Your task to perform on an android device: Go to battery settings Image 0: 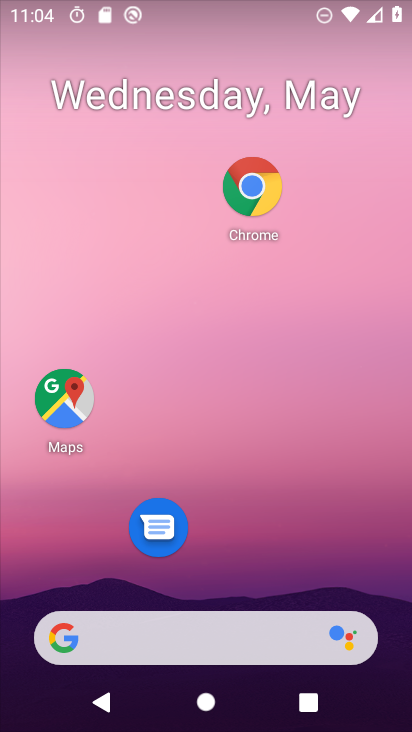
Step 0: drag from (227, 600) to (232, 192)
Your task to perform on an android device: Go to battery settings Image 1: 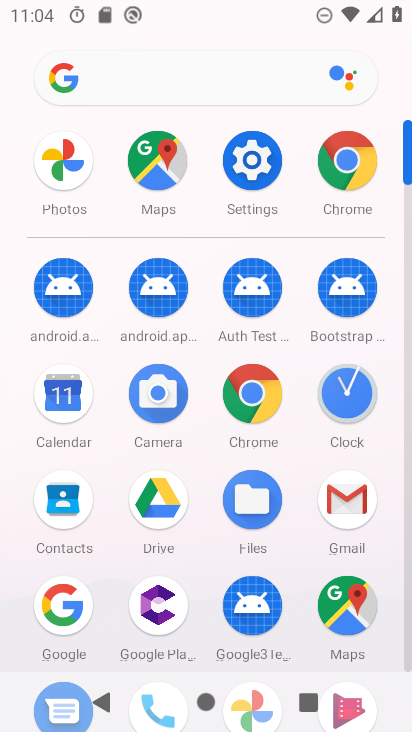
Step 1: click (253, 188)
Your task to perform on an android device: Go to battery settings Image 2: 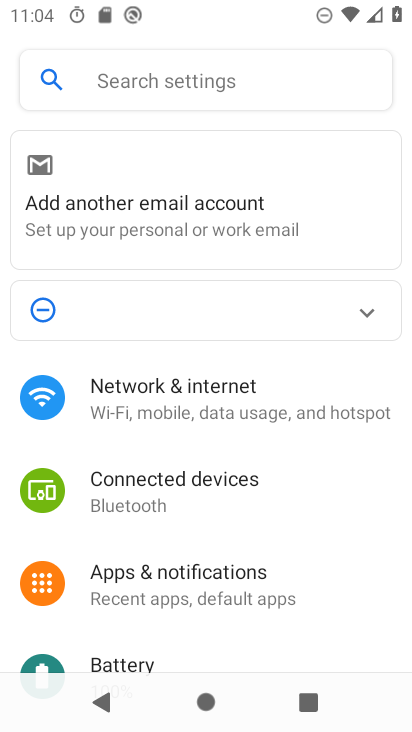
Step 2: drag from (205, 472) to (240, 242)
Your task to perform on an android device: Go to battery settings Image 3: 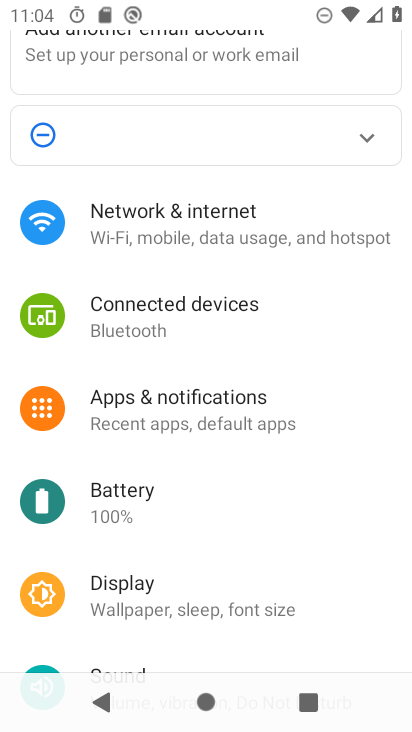
Step 3: drag from (204, 434) to (214, 370)
Your task to perform on an android device: Go to battery settings Image 4: 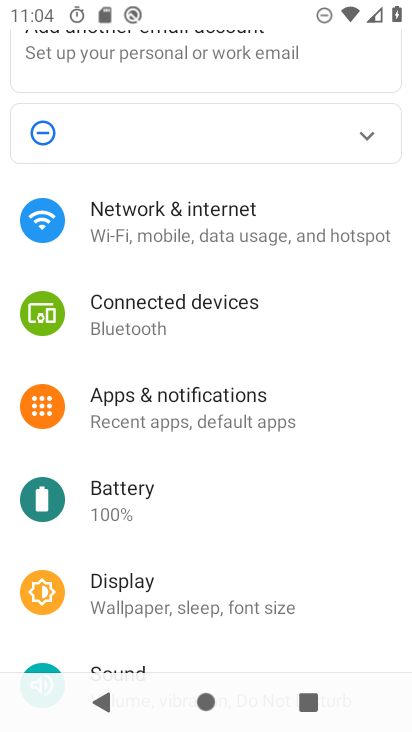
Step 4: click (200, 494)
Your task to perform on an android device: Go to battery settings Image 5: 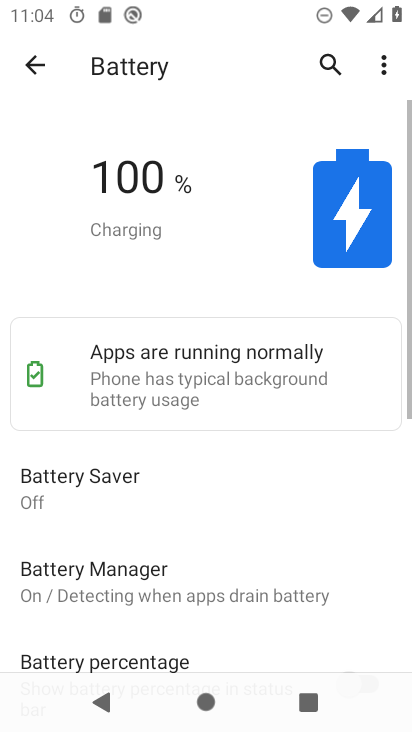
Step 5: task complete